Your task to perform on an android device: turn off sleep mode Image 0: 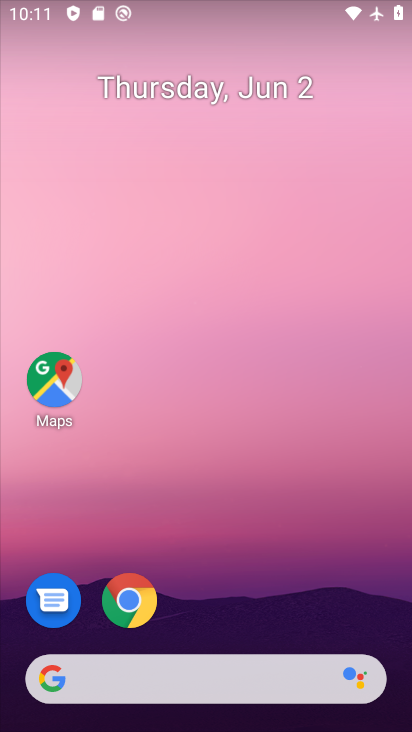
Step 0: press home button
Your task to perform on an android device: turn off sleep mode Image 1: 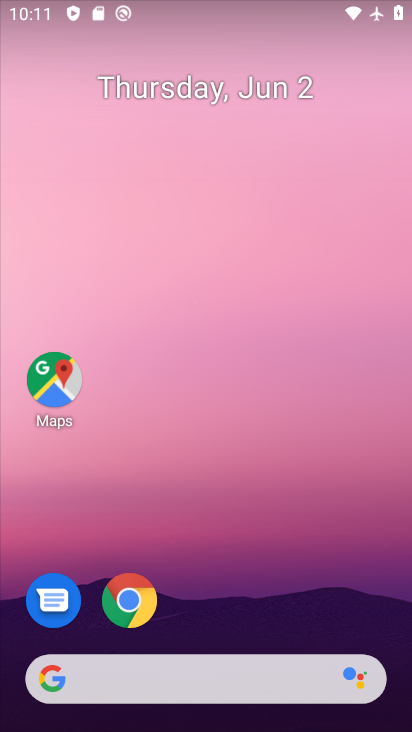
Step 1: drag from (203, 675) to (313, 83)
Your task to perform on an android device: turn off sleep mode Image 2: 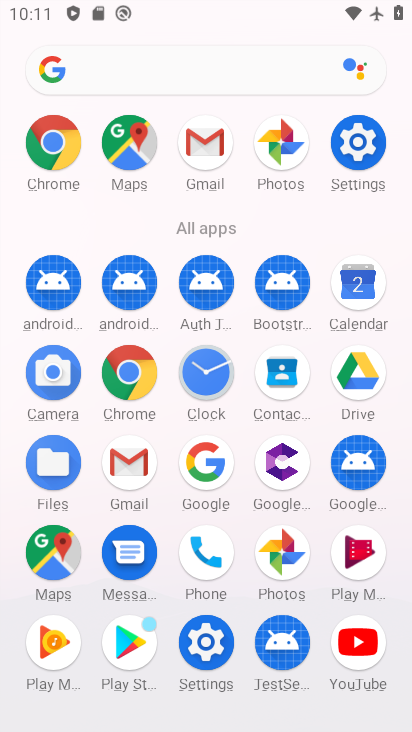
Step 2: click (362, 152)
Your task to perform on an android device: turn off sleep mode Image 3: 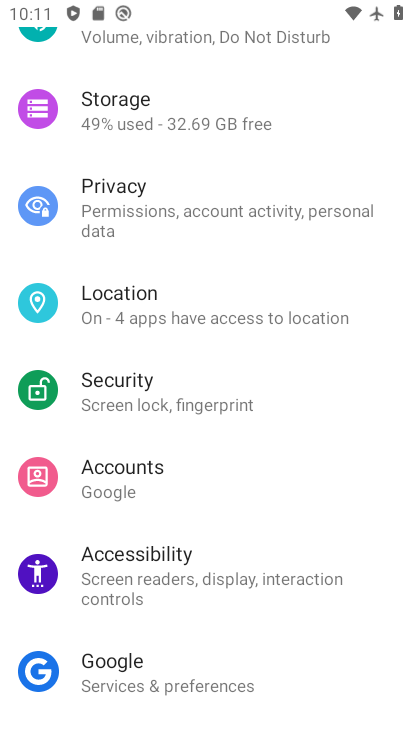
Step 3: drag from (304, 141) to (216, 570)
Your task to perform on an android device: turn off sleep mode Image 4: 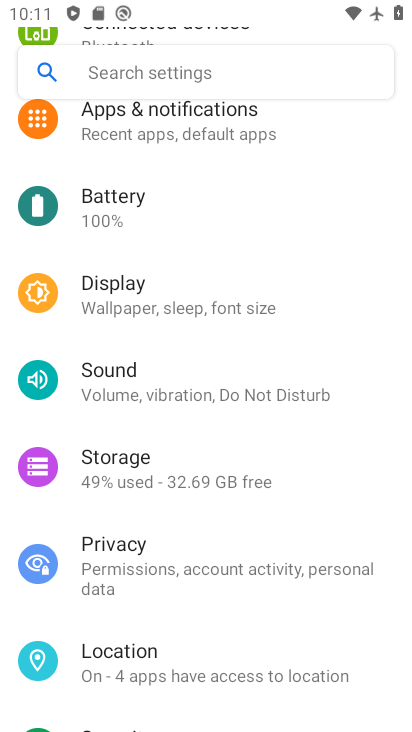
Step 4: click (173, 306)
Your task to perform on an android device: turn off sleep mode Image 5: 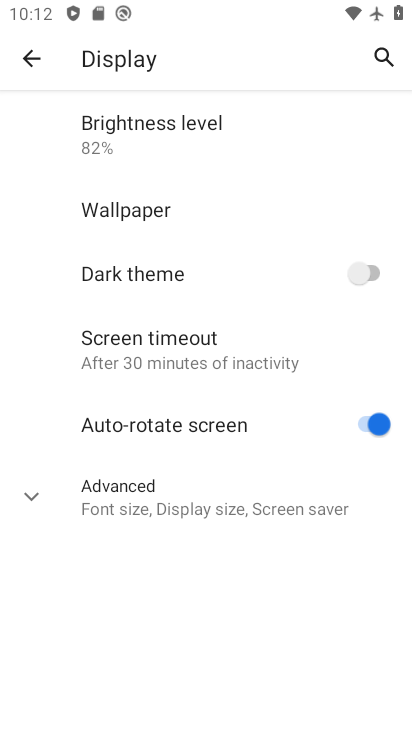
Step 5: task complete